Your task to perform on an android device: find snoozed emails in the gmail app Image 0: 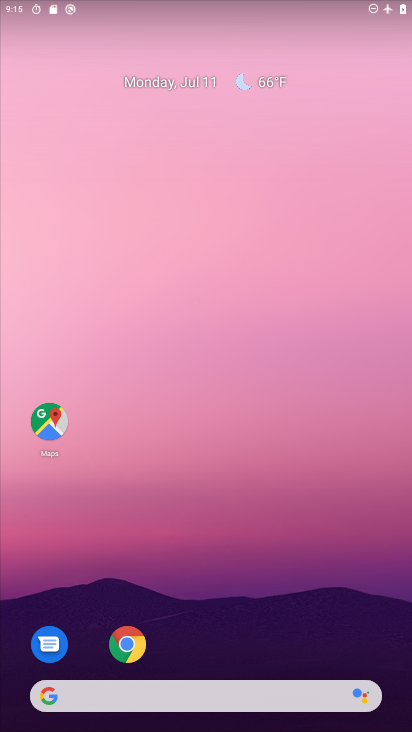
Step 0: click (212, 180)
Your task to perform on an android device: find snoozed emails in the gmail app Image 1: 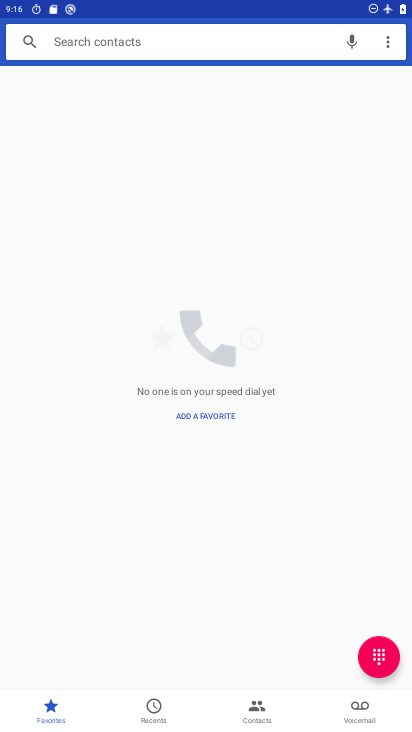
Step 1: press home button
Your task to perform on an android device: find snoozed emails in the gmail app Image 2: 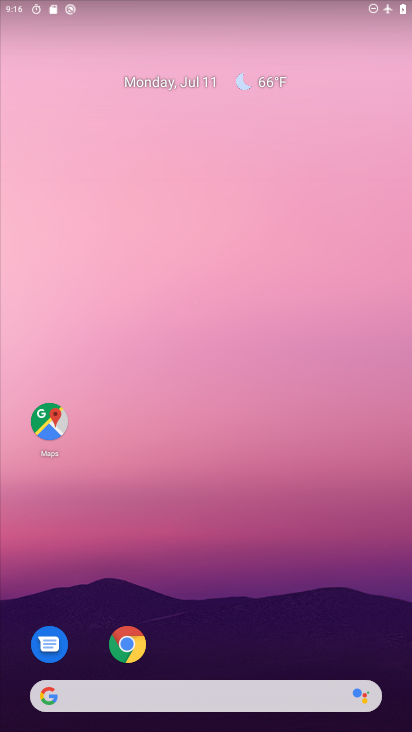
Step 2: drag from (308, 591) to (348, 131)
Your task to perform on an android device: find snoozed emails in the gmail app Image 3: 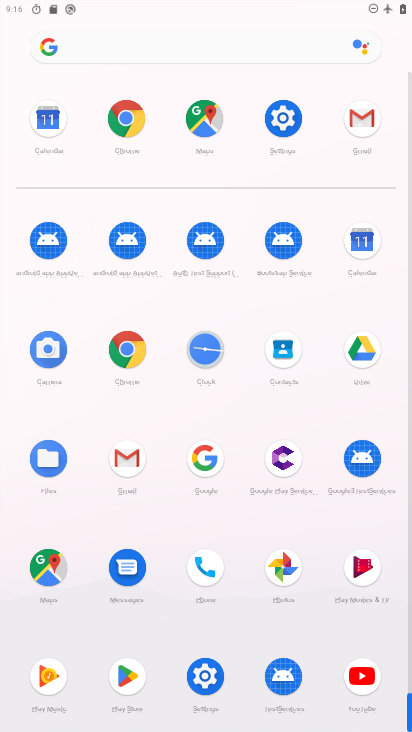
Step 3: click (361, 122)
Your task to perform on an android device: find snoozed emails in the gmail app Image 4: 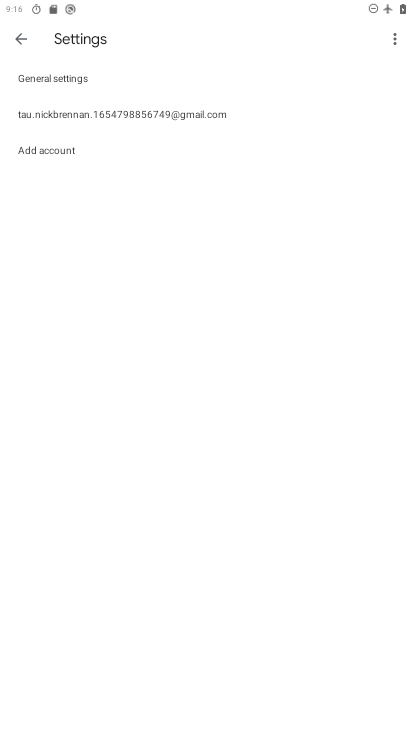
Step 4: click (20, 42)
Your task to perform on an android device: find snoozed emails in the gmail app Image 5: 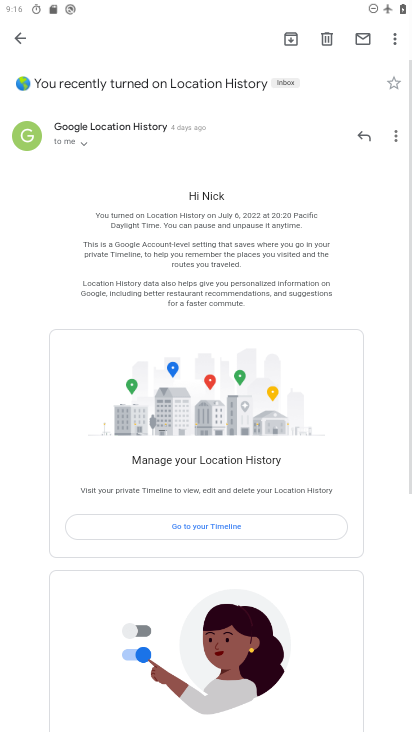
Step 5: click (20, 42)
Your task to perform on an android device: find snoozed emails in the gmail app Image 6: 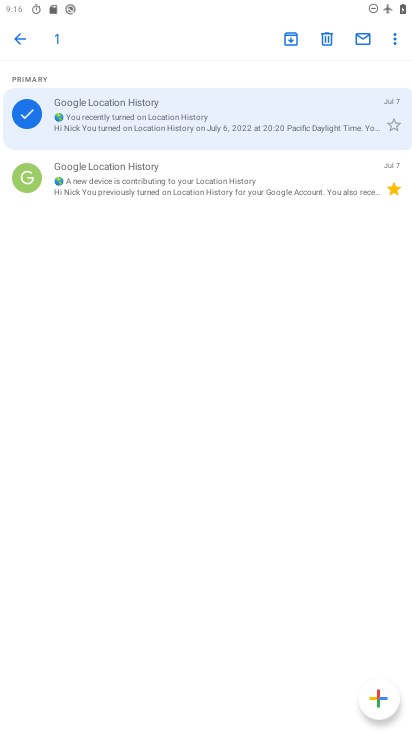
Step 6: click (20, 42)
Your task to perform on an android device: find snoozed emails in the gmail app Image 7: 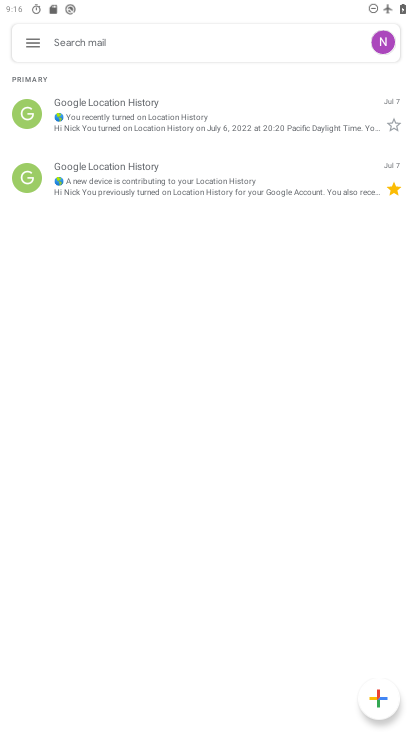
Step 7: click (20, 42)
Your task to perform on an android device: find snoozed emails in the gmail app Image 8: 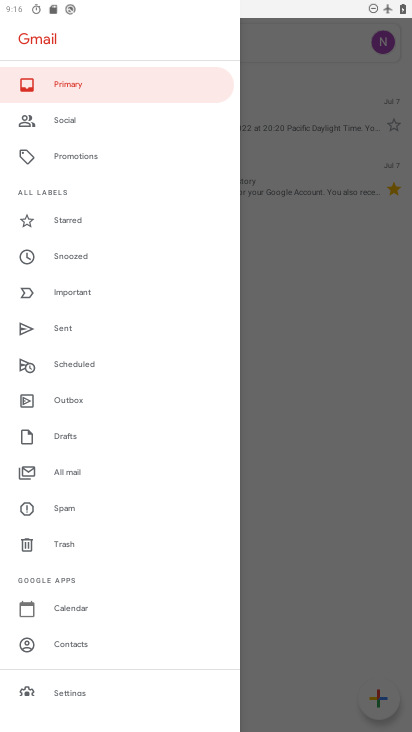
Step 8: click (88, 254)
Your task to perform on an android device: find snoozed emails in the gmail app Image 9: 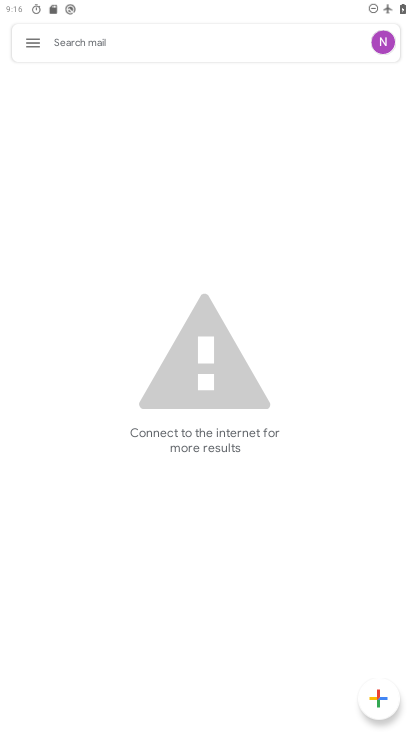
Step 9: task complete